Your task to perform on an android device: Show me productivity apps on the Play Store Image 0: 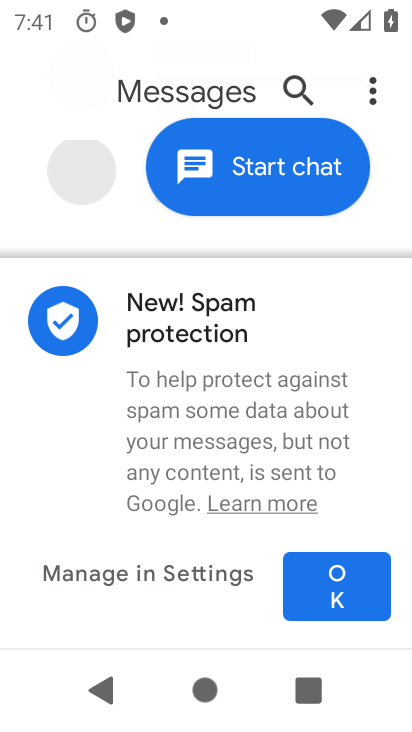
Step 0: press home button
Your task to perform on an android device: Show me productivity apps on the Play Store Image 1: 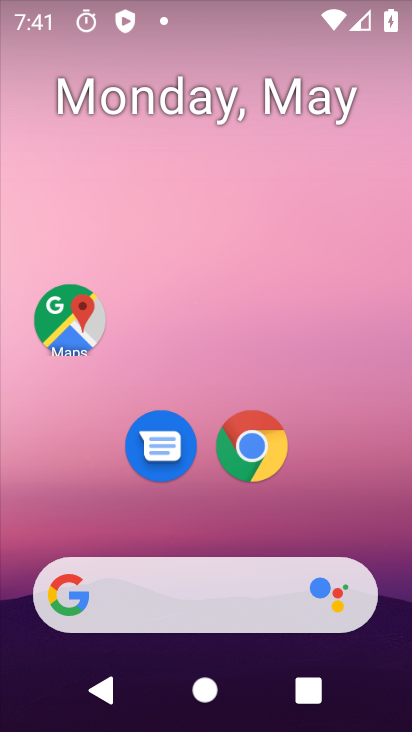
Step 1: drag from (352, 547) to (353, 1)
Your task to perform on an android device: Show me productivity apps on the Play Store Image 2: 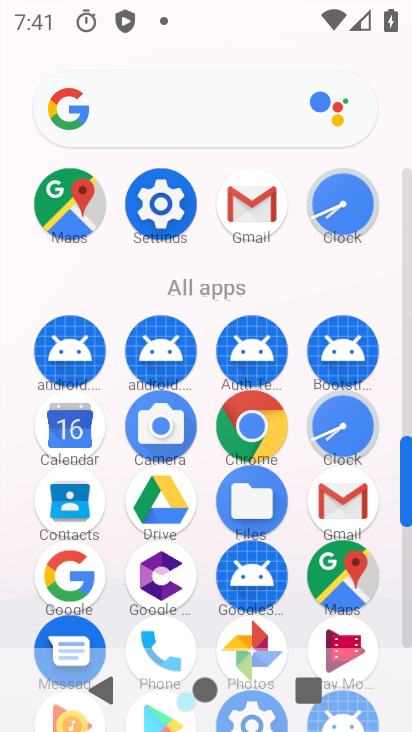
Step 2: drag from (409, 509) to (408, 412)
Your task to perform on an android device: Show me productivity apps on the Play Store Image 3: 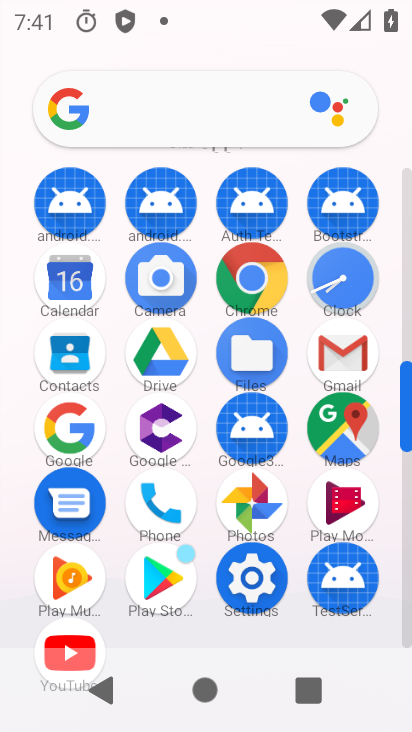
Step 3: click (167, 584)
Your task to perform on an android device: Show me productivity apps on the Play Store Image 4: 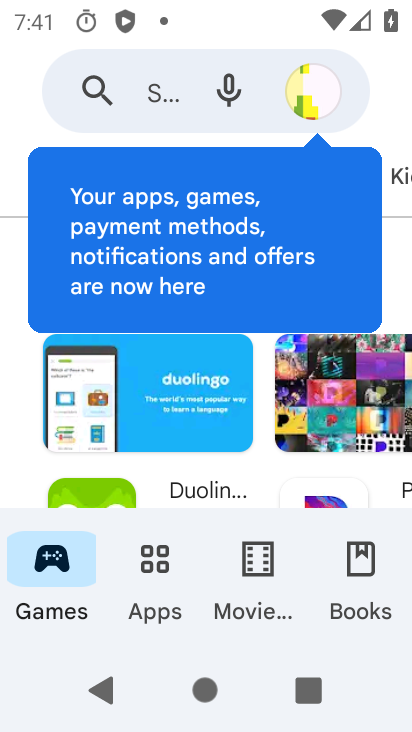
Step 4: click (167, 599)
Your task to perform on an android device: Show me productivity apps on the Play Store Image 5: 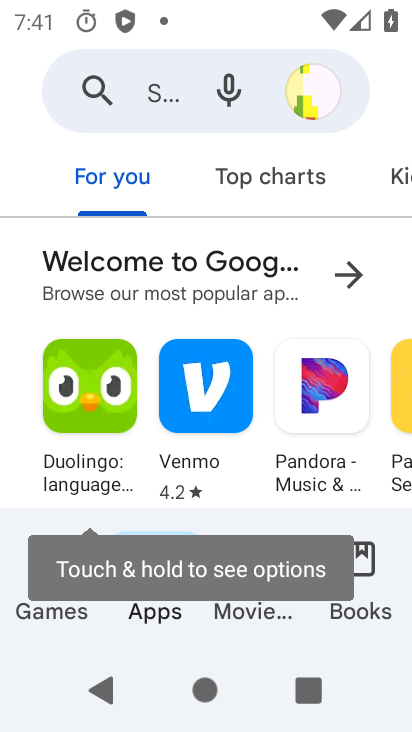
Step 5: drag from (330, 187) to (9, 207)
Your task to perform on an android device: Show me productivity apps on the Play Store Image 6: 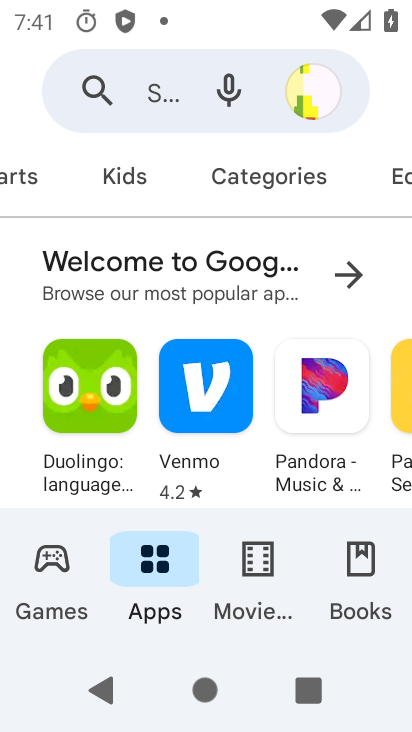
Step 6: click (255, 184)
Your task to perform on an android device: Show me productivity apps on the Play Store Image 7: 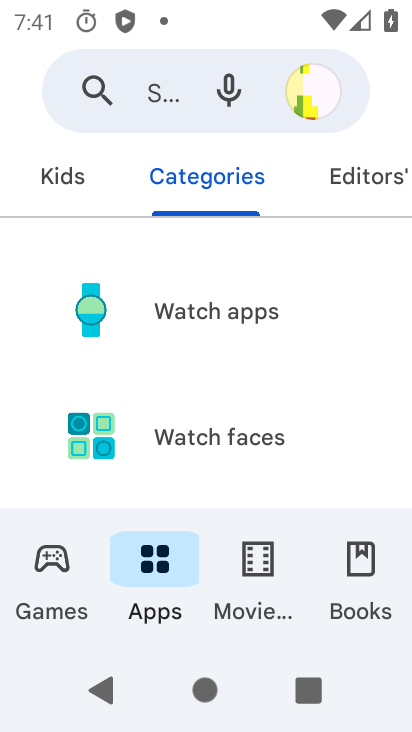
Step 7: drag from (293, 445) to (295, 9)
Your task to perform on an android device: Show me productivity apps on the Play Store Image 8: 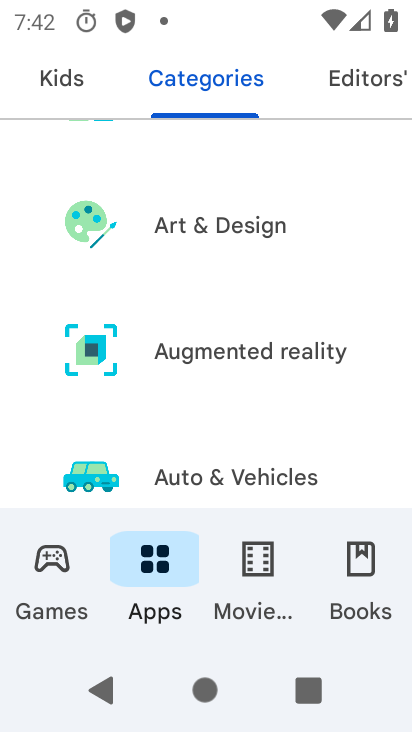
Step 8: drag from (315, 146) to (307, 49)
Your task to perform on an android device: Show me productivity apps on the Play Store Image 9: 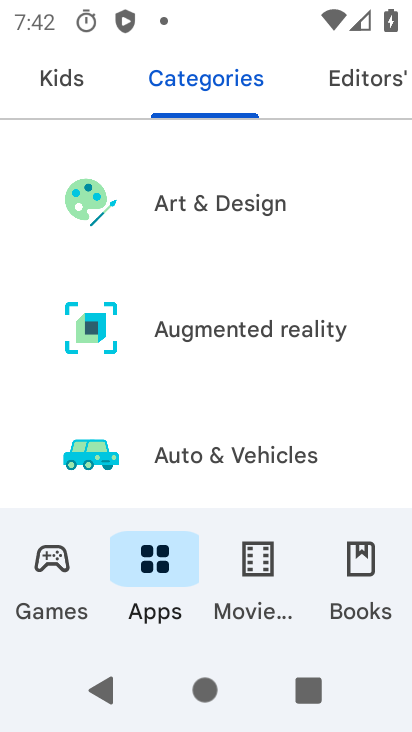
Step 9: drag from (326, 457) to (323, 58)
Your task to perform on an android device: Show me productivity apps on the Play Store Image 10: 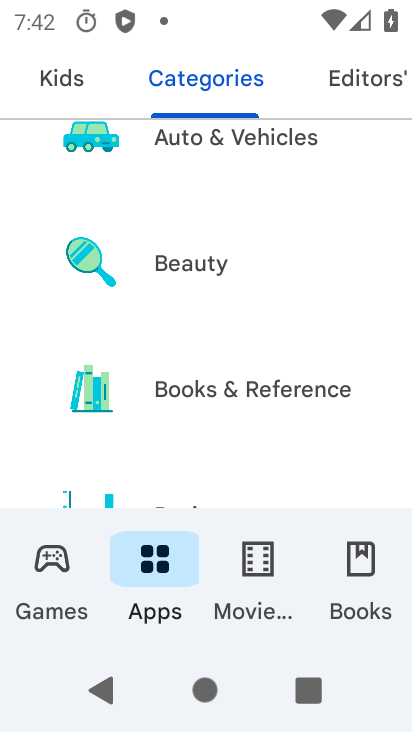
Step 10: drag from (295, 414) to (301, 34)
Your task to perform on an android device: Show me productivity apps on the Play Store Image 11: 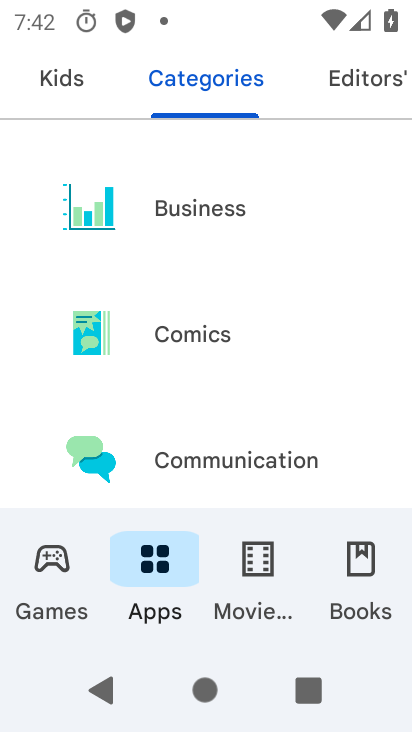
Step 11: drag from (236, 415) to (246, 63)
Your task to perform on an android device: Show me productivity apps on the Play Store Image 12: 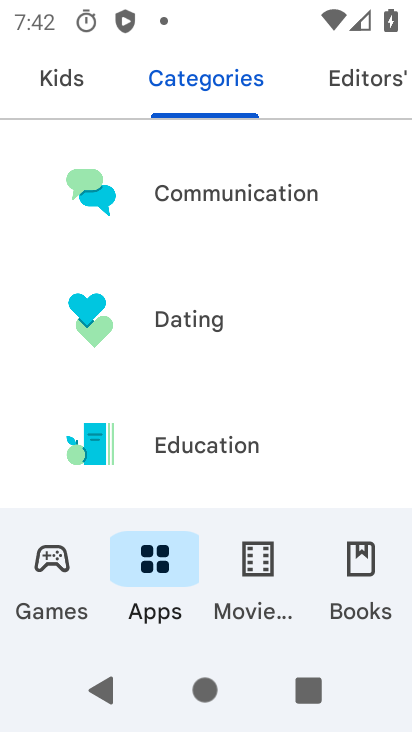
Step 12: drag from (262, 399) to (241, 44)
Your task to perform on an android device: Show me productivity apps on the Play Store Image 13: 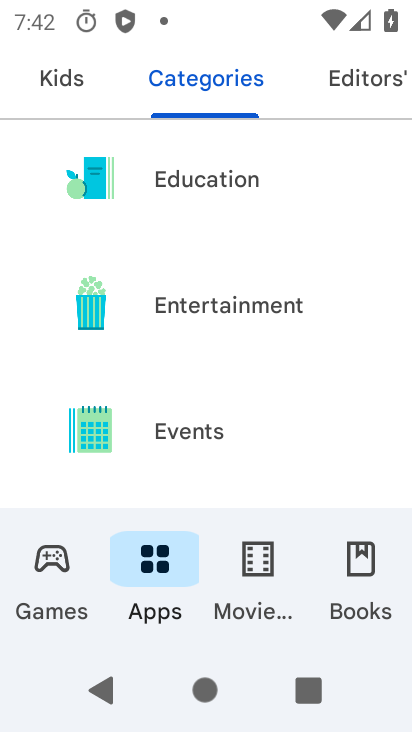
Step 13: drag from (218, 453) to (211, 48)
Your task to perform on an android device: Show me productivity apps on the Play Store Image 14: 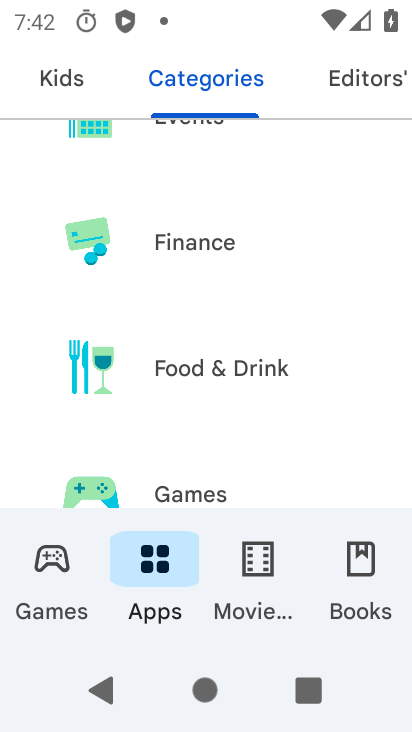
Step 14: drag from (224, 438) to (191, 82)
Your task to perform on an android device: Show me productivity apps on the Play Store Image 15: 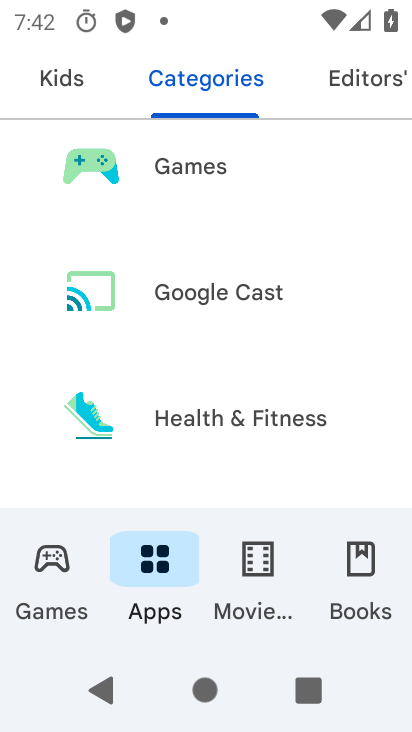
Step 15: drag from (210, 397) to (184, 68)
Your task to perform on an android device: Show me productivity apps on the Play Store Image 16: 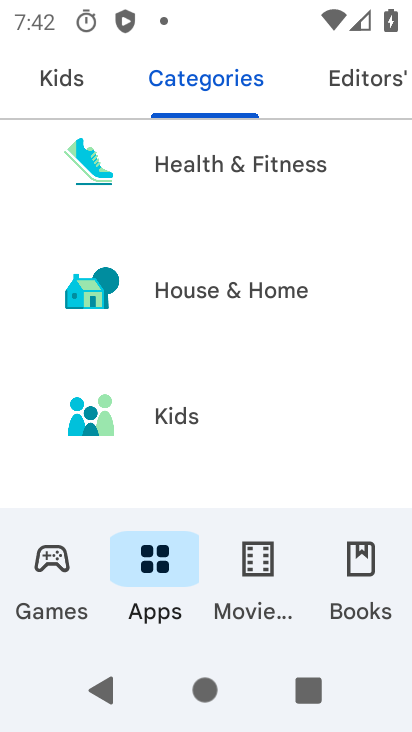
Step 16: drag from (257, 396) to (220, 78)
Your task to perform on an android device: Show me productivity apps on the Play Store Image 17: 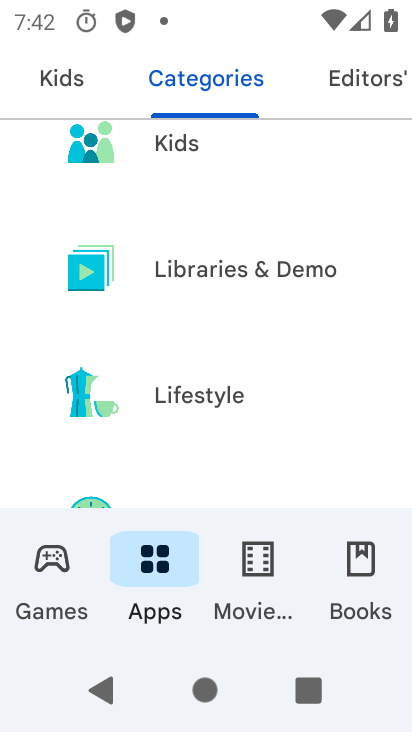
Step 17: drag from (237, 410) to (218, 67)
Your task to perform on an android device: Show me productivity apps on the Play Store Image 18: 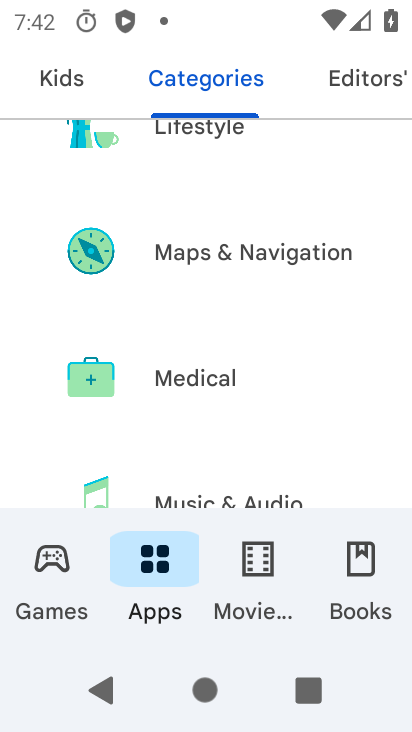
Step 18: drag from (213, 418) to (215, 43)
Your task to perform on an android device: Show me productivity apps on the Play Store Image 19: 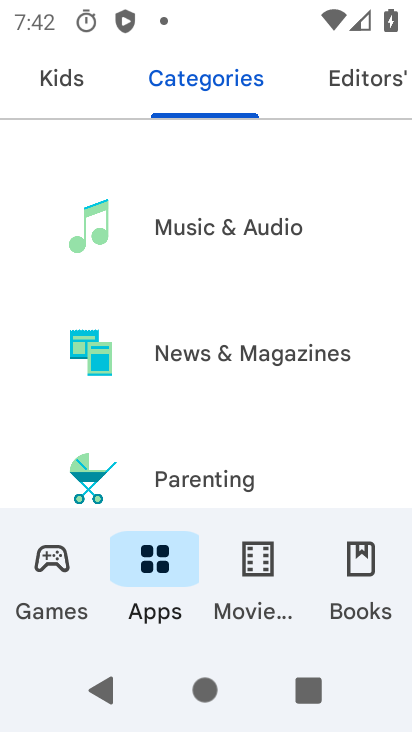
Step 19: drag from (282, 409) to (244, 99)
Your task to perform on an android device: Show me productivity apps on the Play Store Image 20: 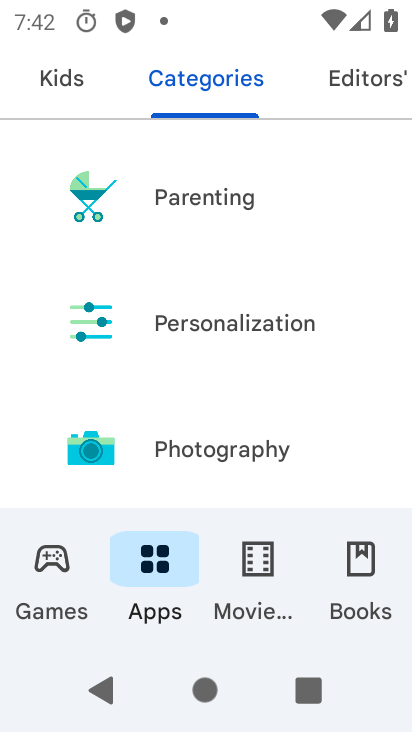
Step 20: drag from (212, 429) to (211, 123)
Your task to perform on an android device: Show me productivity apps on the Play Store Image 21: 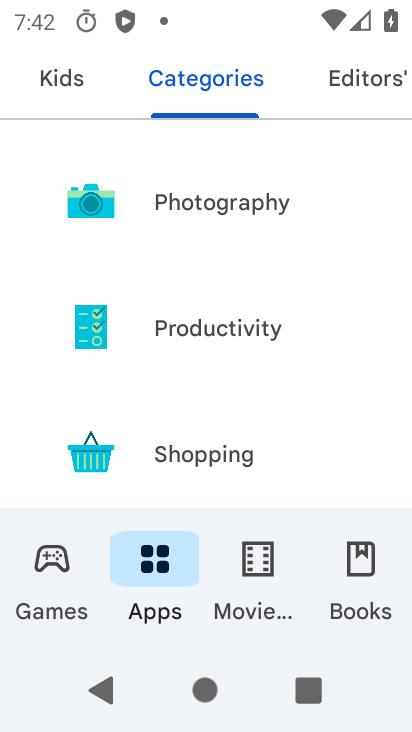
Step 21: click (196, 332)
Your task to perform on an android device: Show me productivity apps on the Play Store Image 22: 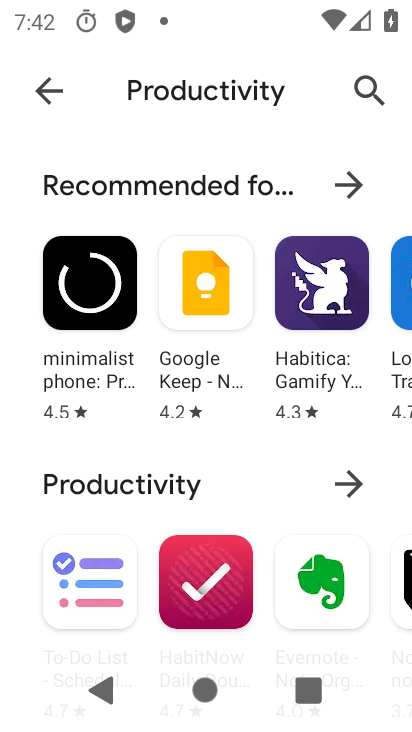
Step 22: task complete